Your task to perform on an android device: Is it going to rain tomorrow? Image 0: 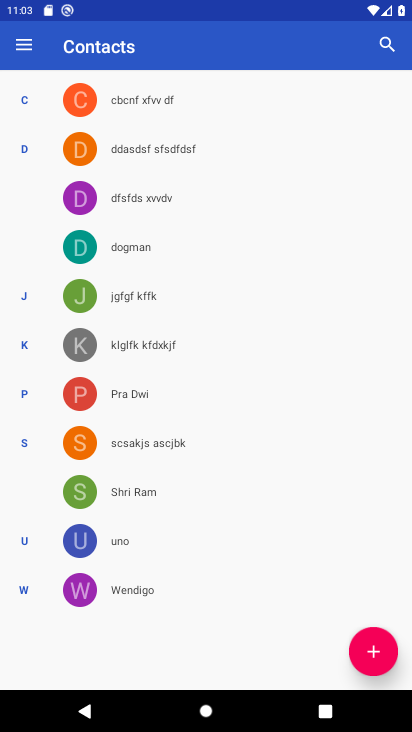
Step 0: press home button
Your task to perform on an android device: Is it going to rain tomorrow? Image 1: 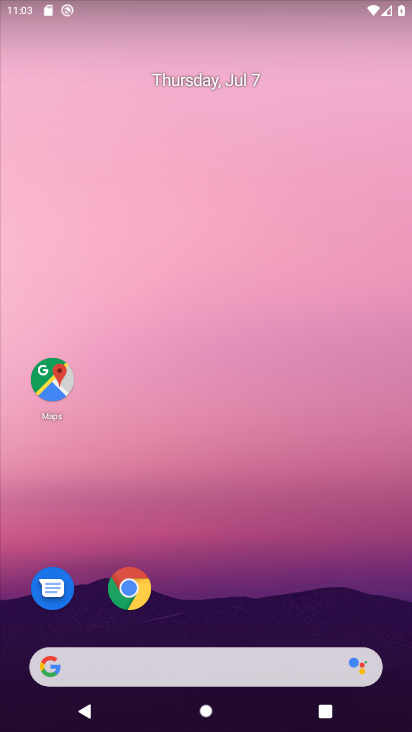
Step 1: click (247, 669)
Your task to perform on an android device: Is it going to rain tomorrow? Image 2: 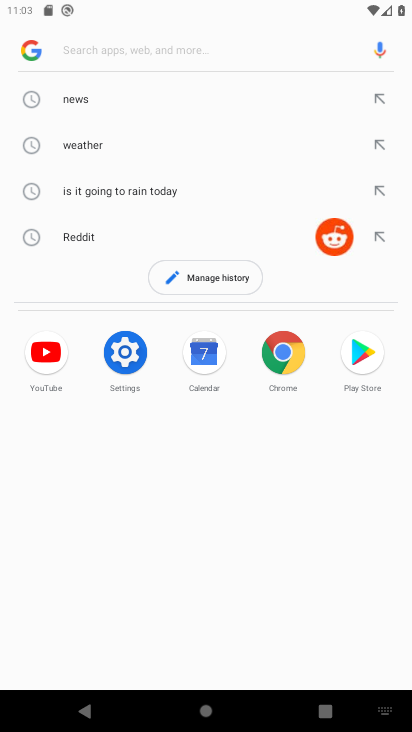
Step 2: type "Is it going to rain tomorrow"
Your task to perform on an android device: Is it going to rain tomorrow? Image 3: 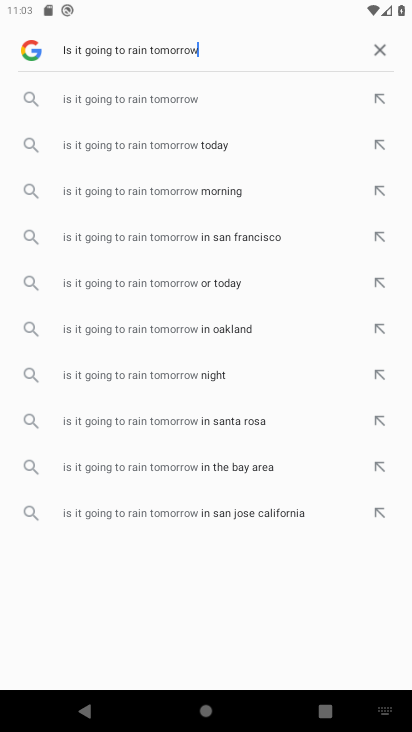
Step 3: click (158, 95)
Your task to perform on an android device: Is it going to rain tomorrow? Image 4: 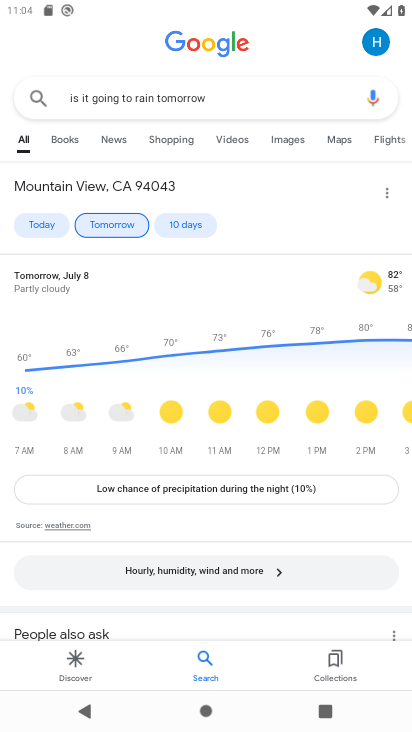
Step 4: task complete